Your task to perform on an android device: add a label to a message in the gmail app Image 0: 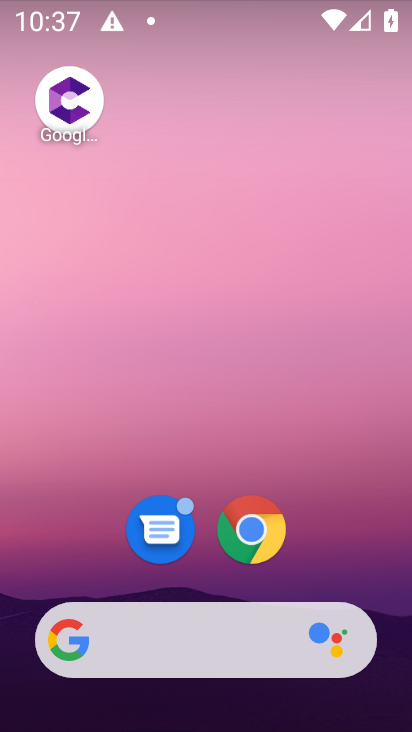
Step 0: drag from (362, 553) to (280, 143)
Your task to perform on an android device: add a label to a message in the gmail app Image 1: 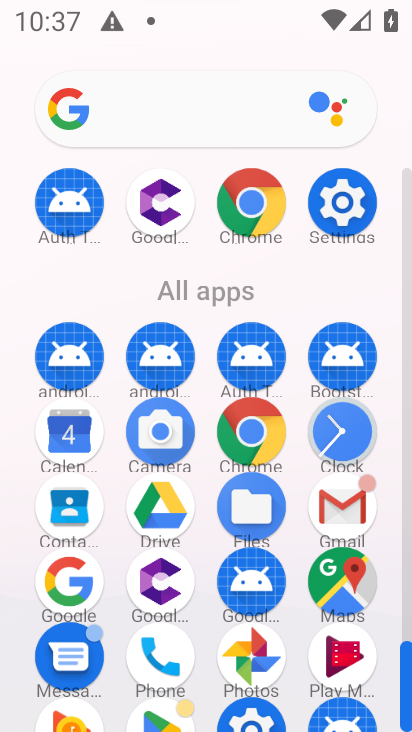
Step 1: click (337, 500)
Your task to perform on an android device: add a label to a message in the gmail app Image 2: 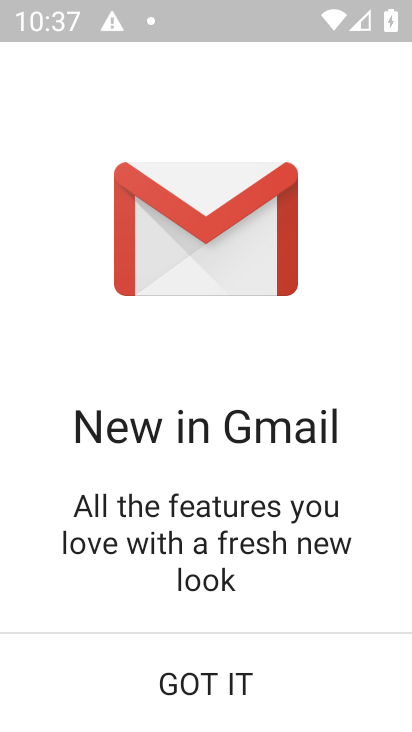
Step 2: click (223, 671)
Your task to perform on an android device: add a label to a message in the gmail app Image 3: 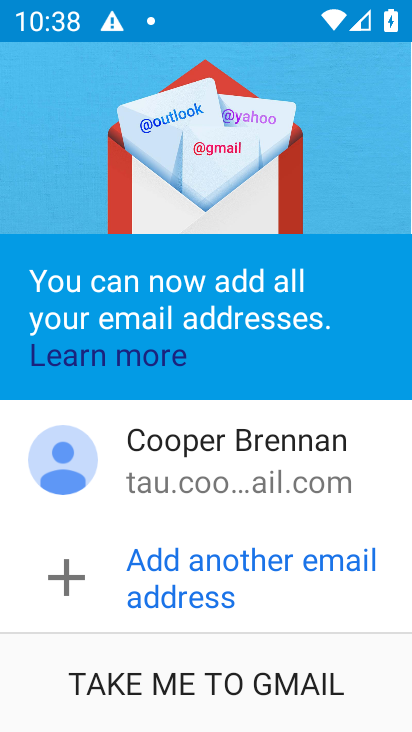
Step 3: click (258, 690)
Your task to perform on an android device: add a label to a message in the gmail app Image 4: 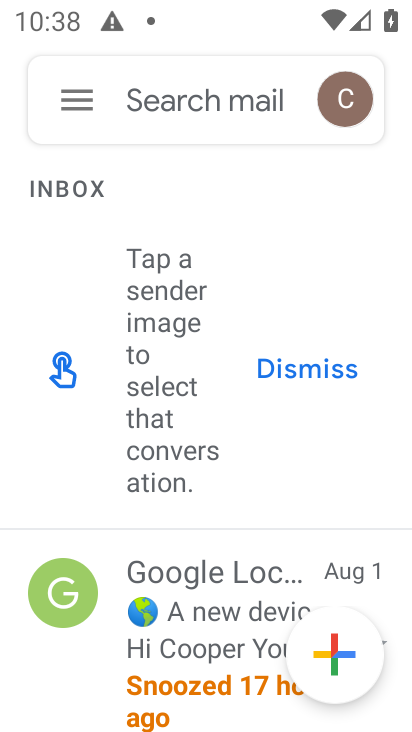
Step 4: click (78, 97)
Your task to perform on an android device: add a label to a message in the gmail app Image 5: 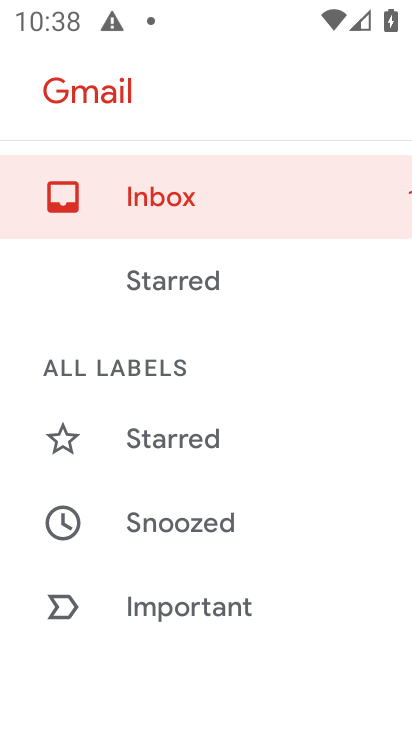
Step 5: click (170, 212)
Your task to perform on an android device: add a label to a message in the gmail app Image 6: 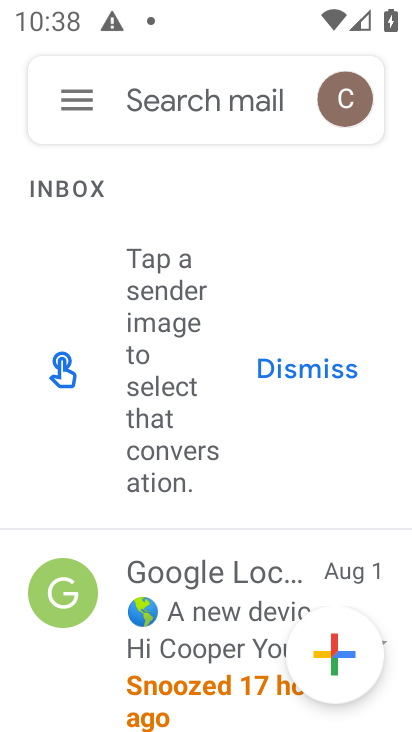
Step 6: click (199, 578)
Your task to perform on an android device: add a label to a message in the gmail app Image 7: 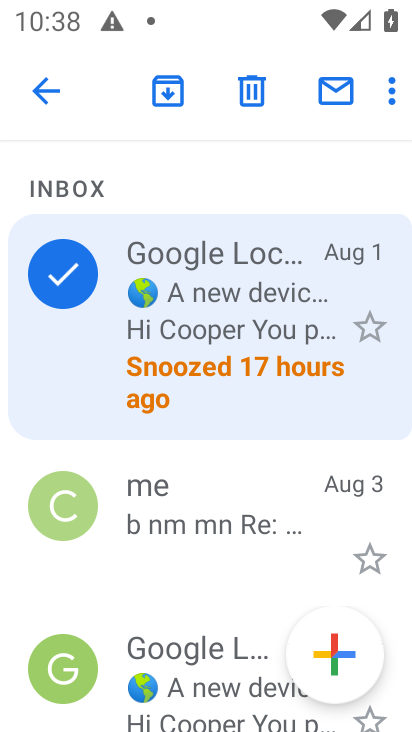
Step 7: click (389, 96)
Your task to perform on an android device: add a label to a message in the gmail app Image 8: 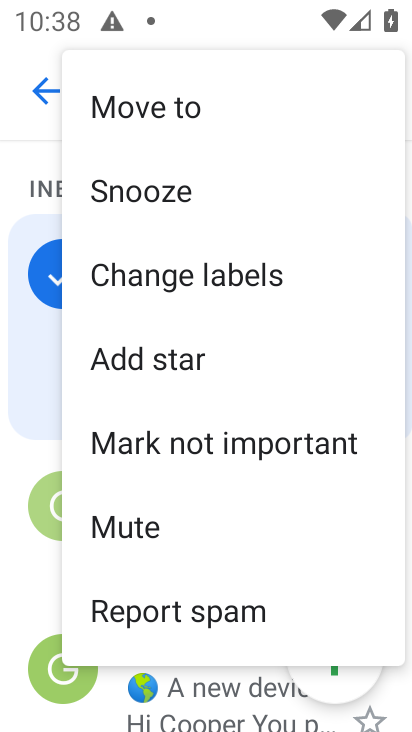
Step 8: click (290, 262)
Your task to perform on an android device: add a label to a message in the gmail app Image 9: 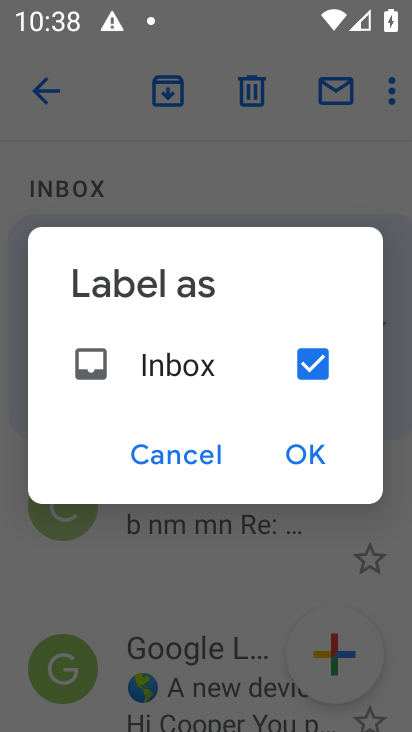
Step 9: click (312, 440)
Your task to perform on an android device: add a label to a message in the gmail app Image 10: 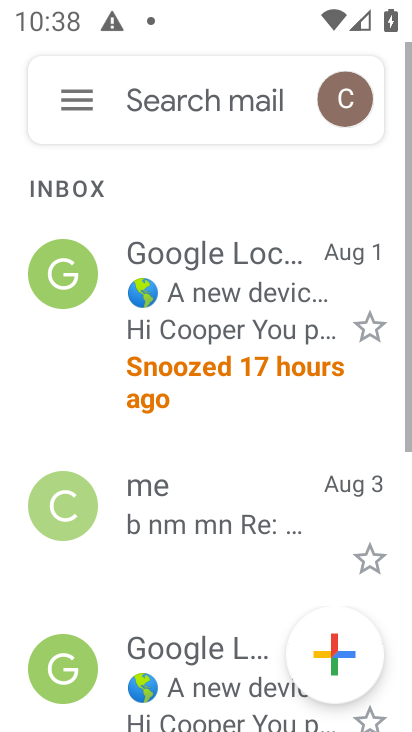
Step 10: task complete